Your task to perform on an android device: Open settings Image 0: 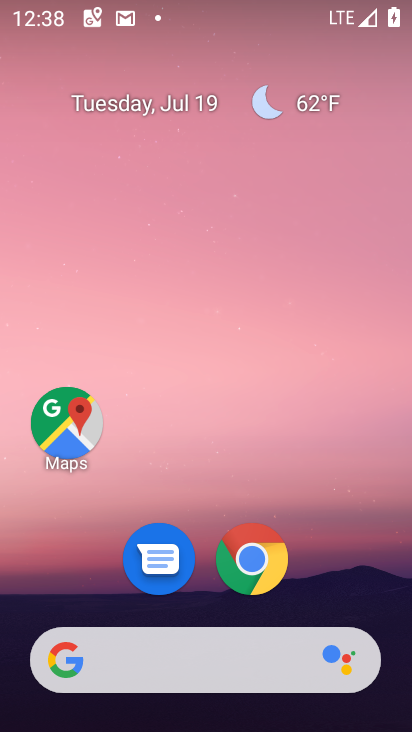
Step 0: drag from (273, 628) to (385, 104)
Your task to perform on an android device: Open settings Image 1: 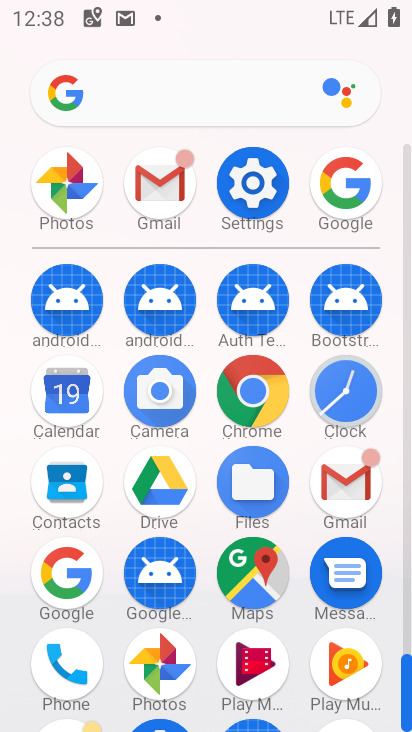
Step 1: click (264, 195)
Your task to perform on an android device: Open settings Image 2: 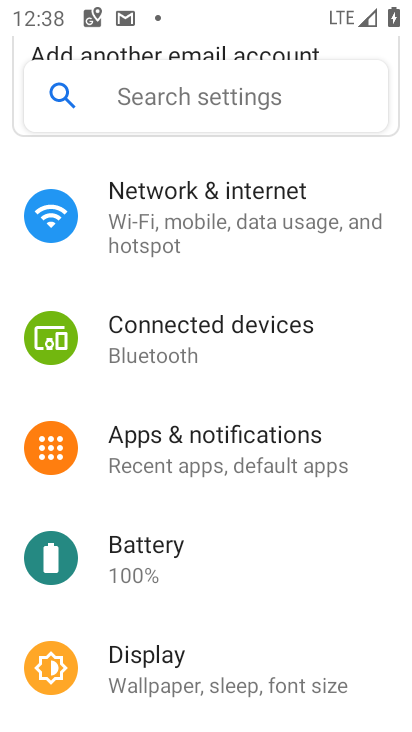
Step 2: task complete